Your task to perform on an android device: Open privacy settings Image 0: 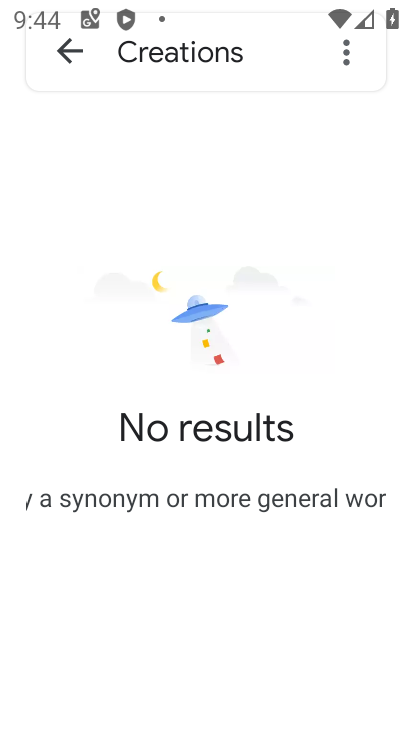
Step 0: press back button
Your task to perform on an android device: Open privacy settings Image 1: 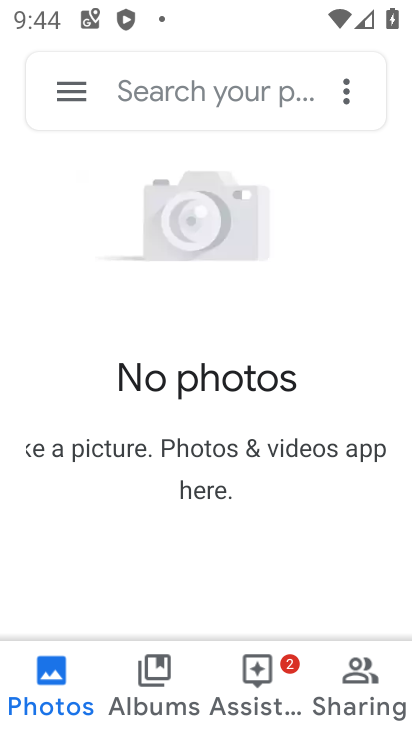
Step 1: press home button
Your task to perform on an android device: Open privacy settings Image 2: 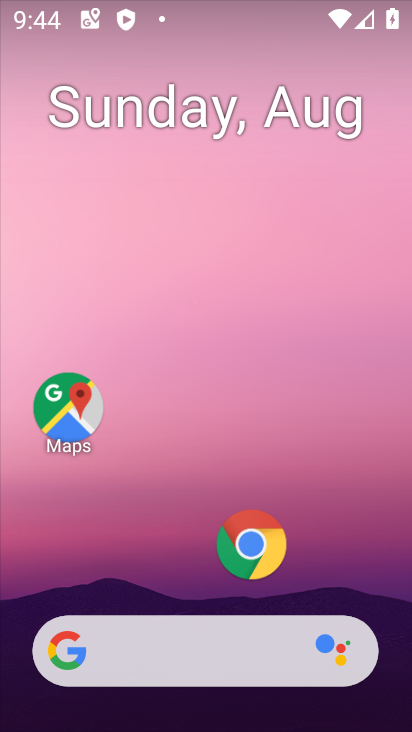
Step 2: drag from (157, 7) to (391, 3)
Your task to perform on an android device: Open privacy settings Image 3: 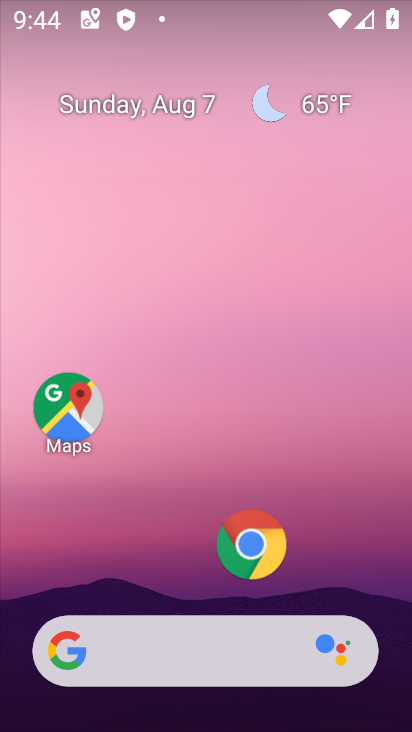
Step 3: drag from (156, 595) to (171, 22)
Your task to perform on an android device: Open privacy settings Image 4: 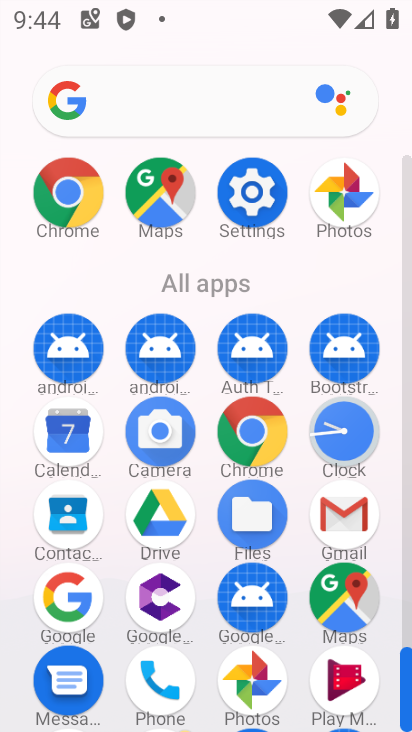
Step 4: click (249, 198)
Your task to perform on an android device: Open privacy settings Image 5: 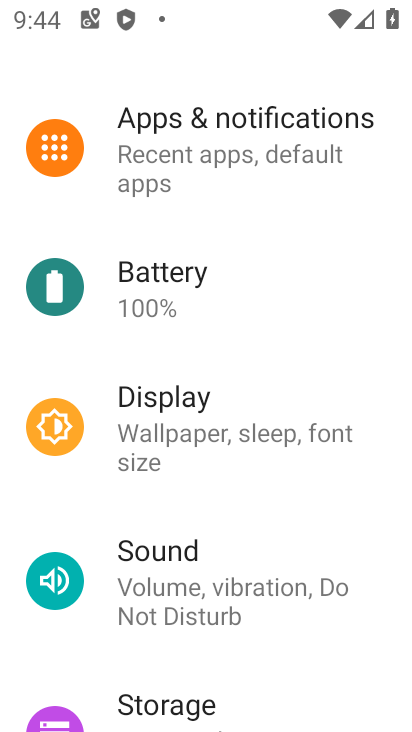
Step 5: drag from (231, 607) to (205, 115)
Your task to perform on an android device: Open privacy settings Image 6: 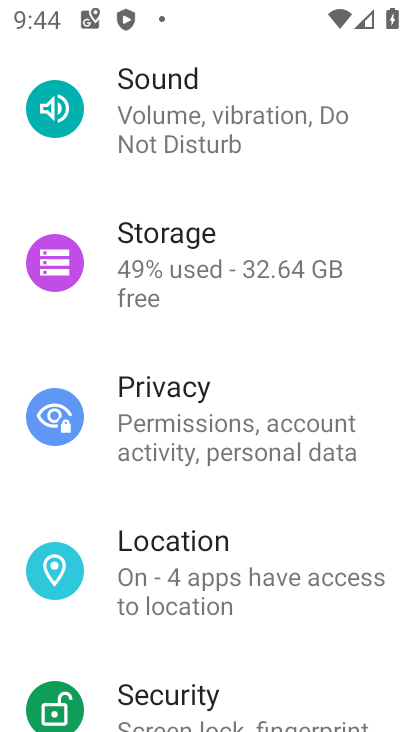
Step 6: click (222, 381)
Your task to perform on an android device: Open privacy settings Image 7: 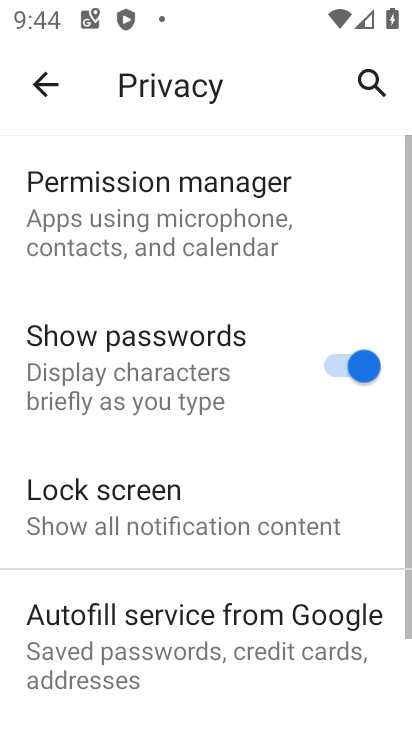
Step 7: task complete